Your task to perform on an android device: Open calendar and show me the third week of next month Image 0: 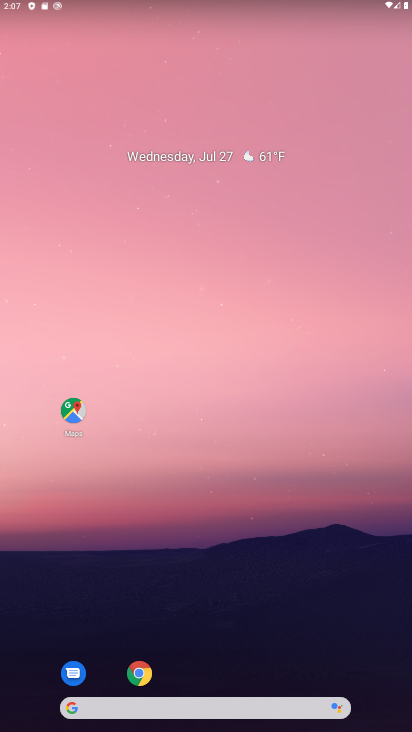
Step 0: click (171, 150)
Your task to perform on an android device: Open calendar and show me the third week of next month Image 1: 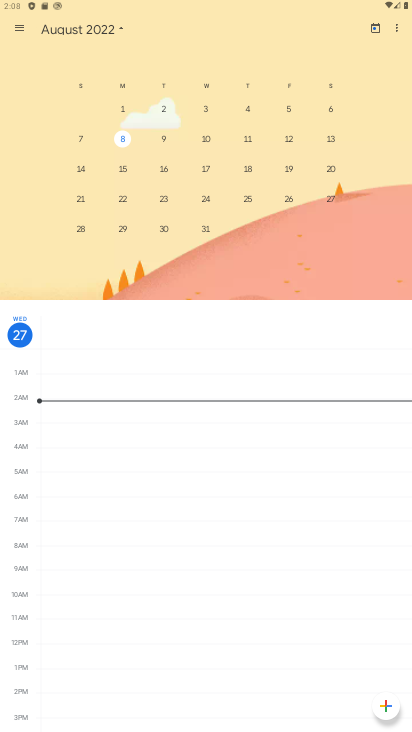
Step 1: drag from (72, 283) to (365, 280)
Your task to perform on an android device: Open calendar and show me the third week of next month Image 2: 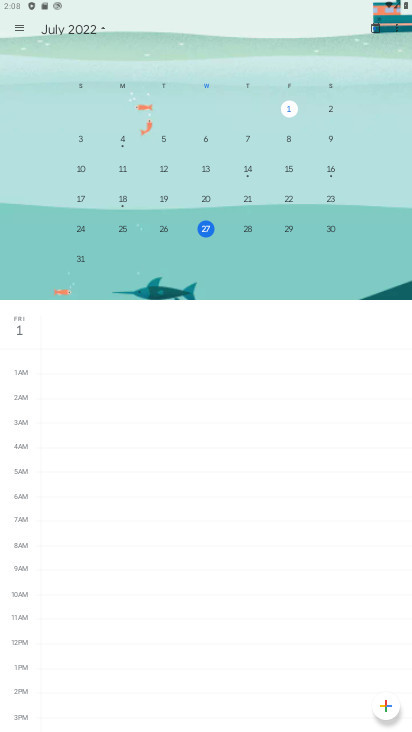
Step 2: click (290, 173)
Your task to perform on an android device: Open calendar and show me the third week of next month Image 3: 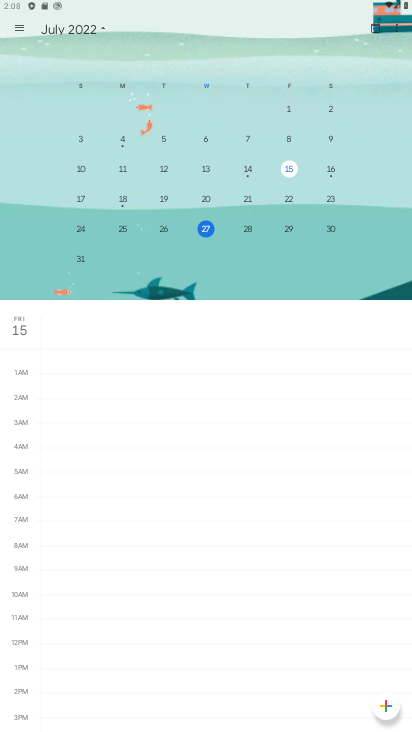
Step 3: task complete